Your task to perform on an android device: toggle translation in the chrome app Image 0: 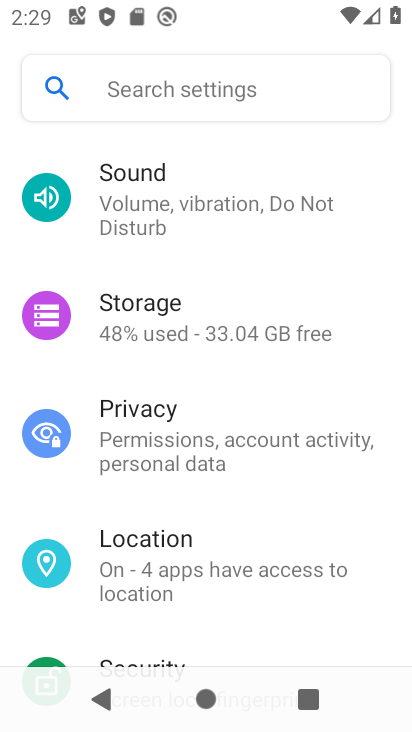
Step 0: press back button
Your task to perform on an android device: toggle translation in the chrome app Image 1: 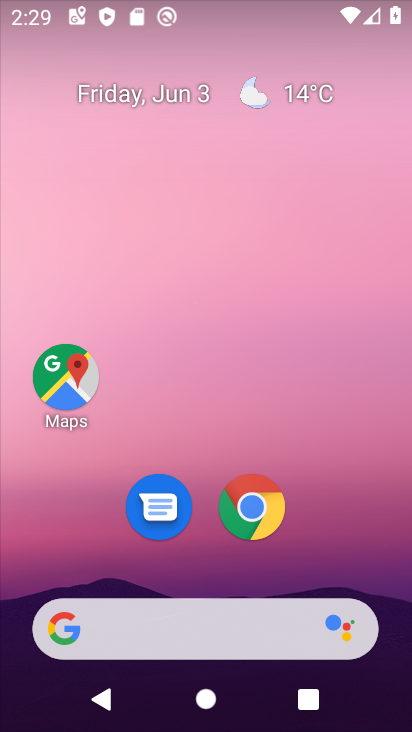
Step 1: click (250, 507)
Your task to perform on an android device: toggle translation in the chrome app Image 2: 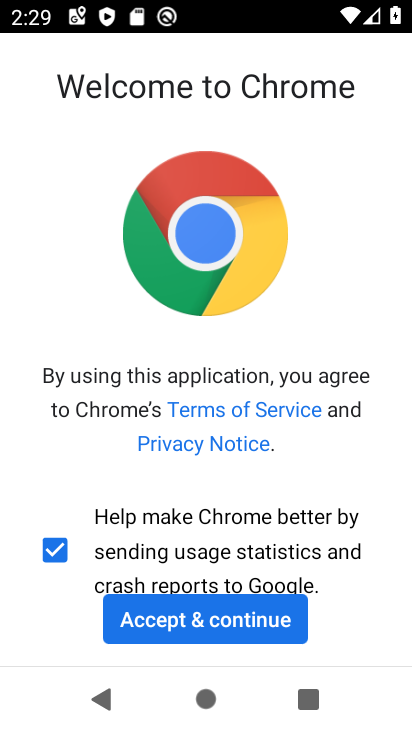
Step 2: click (223, 624)
Your task to perform on an android device: toggle translation in the chrome app Image 3: 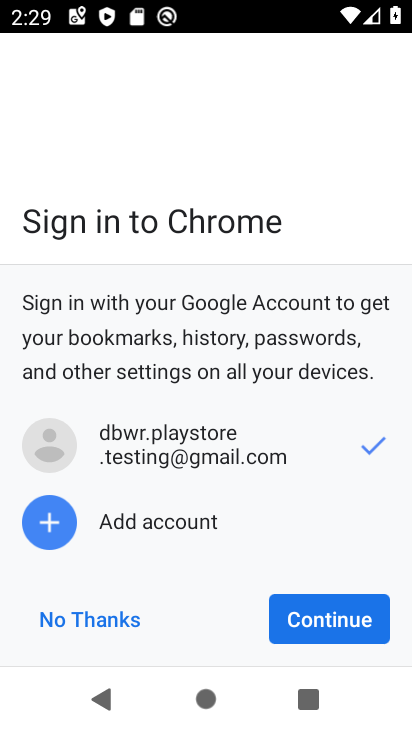
Step 3: click (316, 612)
Your task to perform on an android device: toggle translation in the chrome app Image 4: 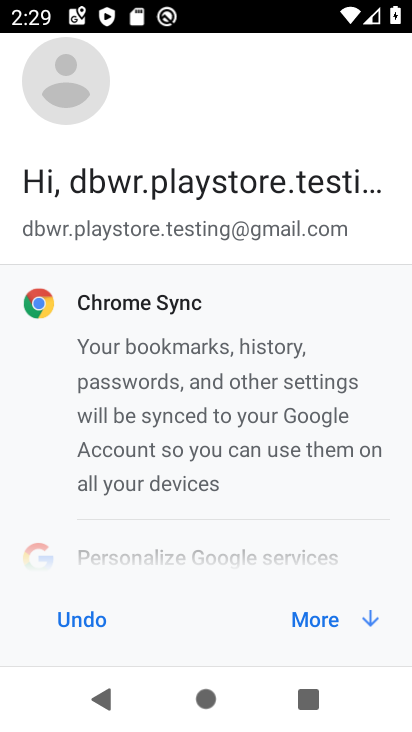
Step 4: click (323, 624)
Your task to perform on an android device: toggle translation in the chrome app Image 5: 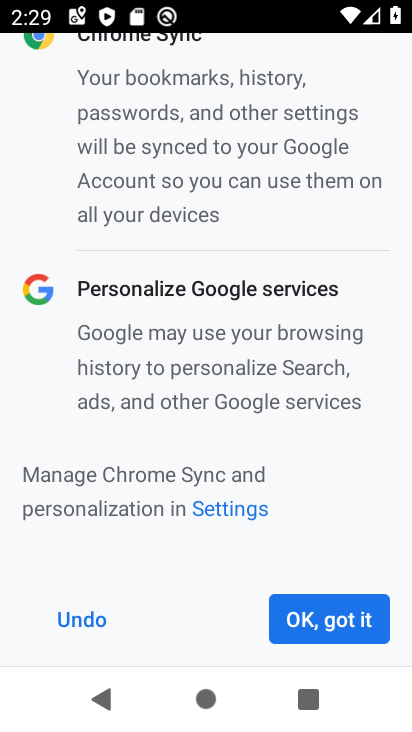
Step 5: click (323, 624)
Your task to perform on an android device: toggle translation in the chrome app Image 6: 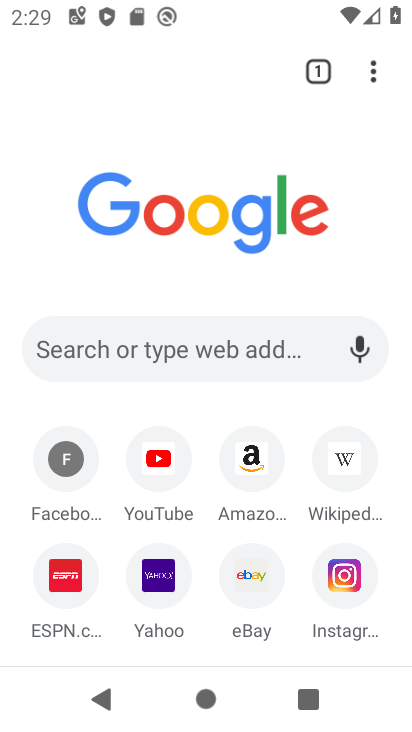
Step 6: click (373, 68)
Your task to perform on an android device: toggle translation in the chrome app Image 7: 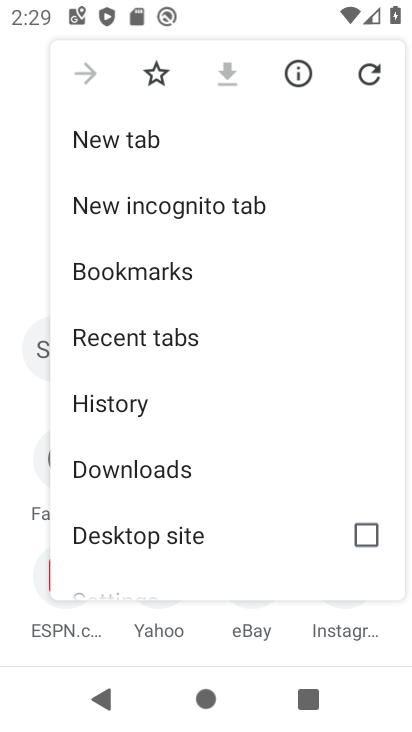
Step 7: drag from (168, 432) to (246, 332)
Your task to perform on an android device: toggle translation in the chrome app Image 8: 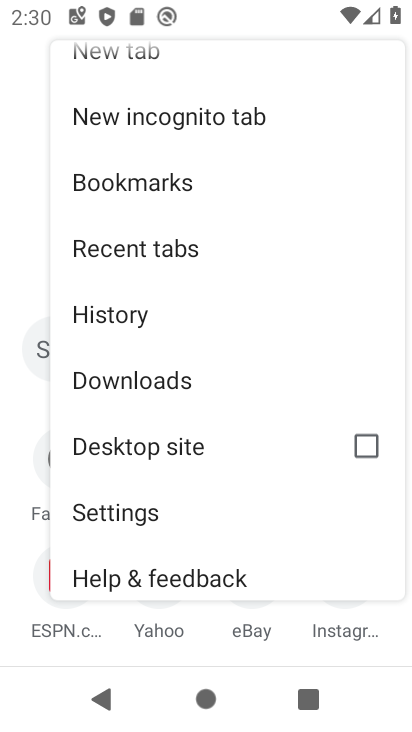
Step 8: click (137, 504)
Your task to perform on an android device: toggle translation in the chrome app Image 9: 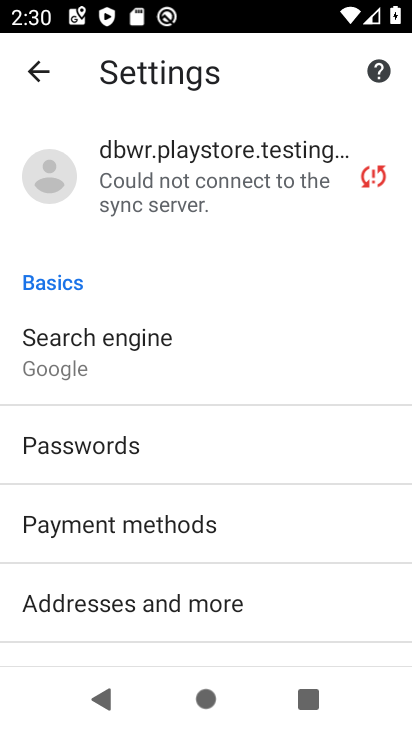
Step 9: drag from (174, 442) to (216, 320)
Your task to perform on an android device: toggle translation in the chrome app Image 10: 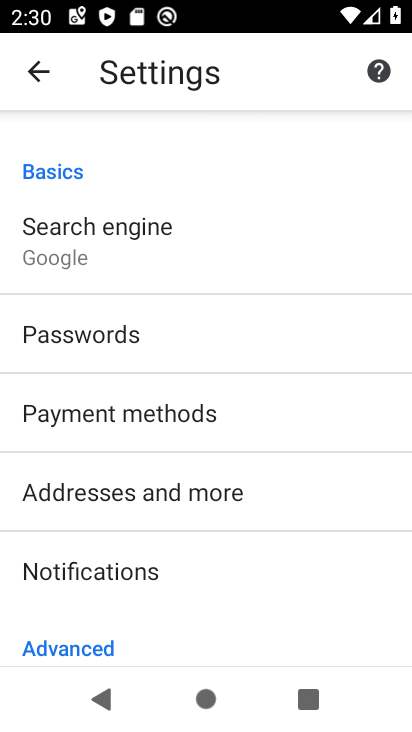
Step 10: drag from (191, 558) to (237, 434)
Your task to perform on an android device: toggle translation in the chrome app Image 11: 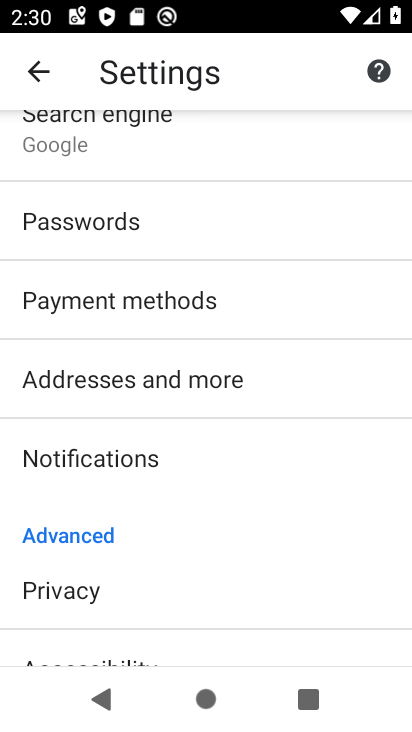
Step 11: drag from (168, 566) to (240, 427)
Your task to perform on an android device: toggle translation in the chrome app Image 12: 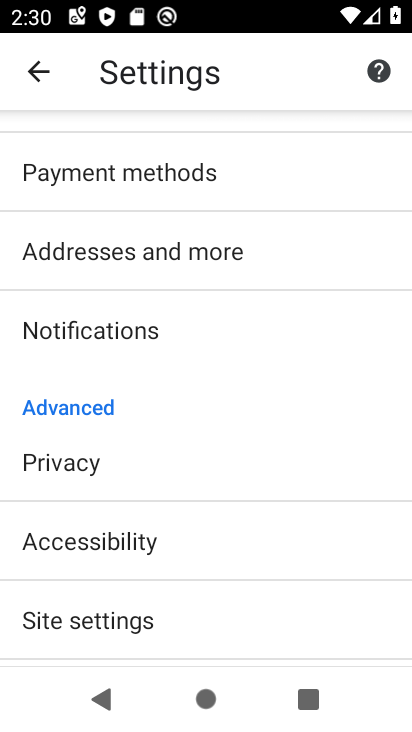
Step 12: drag from (194, 540) to (224, 436)
Your task to perform on an android device: toggle translation in the chrome app Image 13: 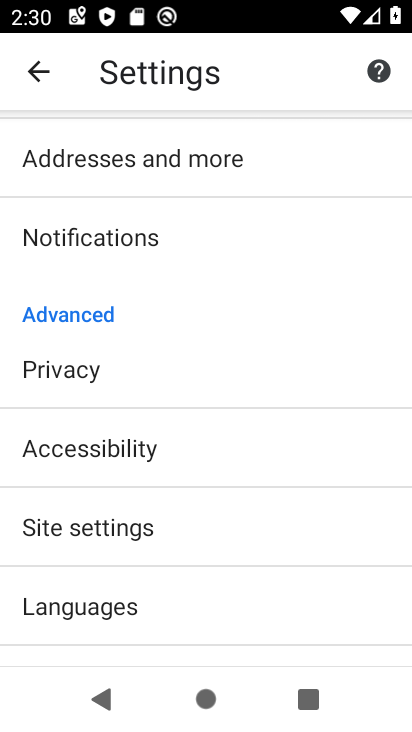
Step 13: click (129, 611)
Your task to perform on an android device: toggle translation in the chrome app Image 14: 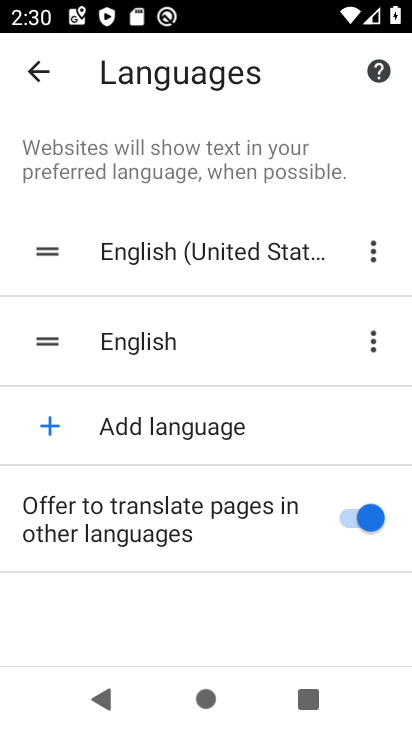
Step 14: click (344, 525)
Your task to perform on an android device: toggle translation in the chrome app Image 15: 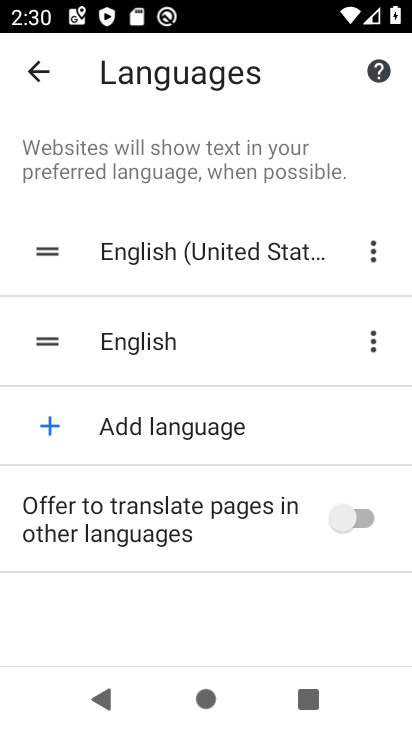
Step 15: task complete